Your task to perform on an android device: open chrome and create a bookmark for the current page Image 0: 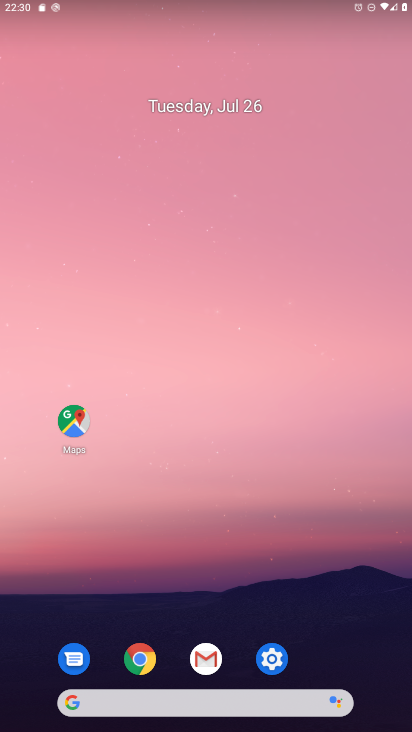
Step 0: click (143, 669)
Your task to perform on an android device: open chrome and create a bookmark for the current page Image 1: 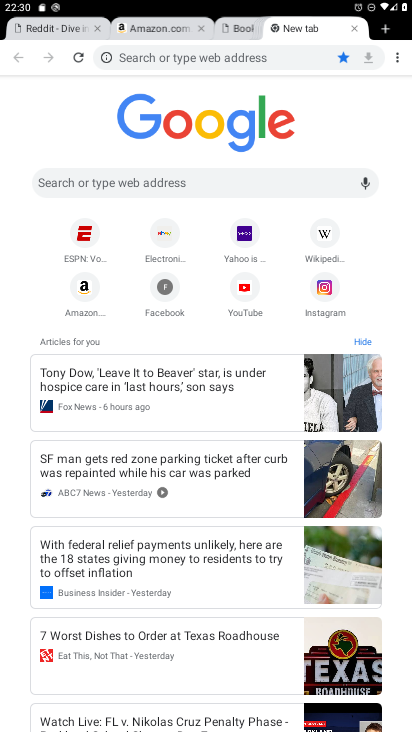
Step 1: click (399, 60)
Your task to perform on an android device: open chrome and create a bookmark for the current page Image 2: 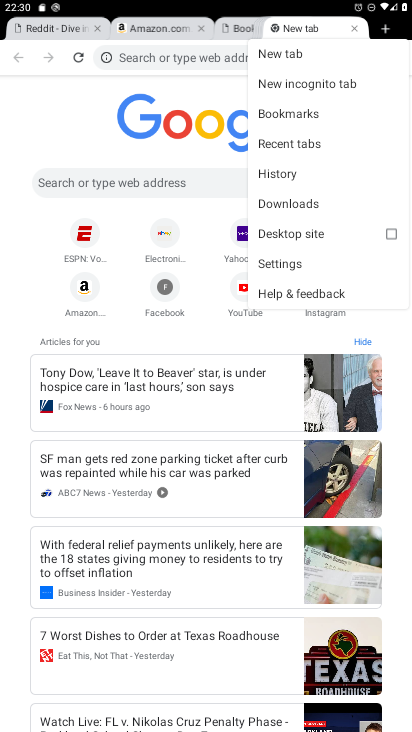
Step 2: click (297, 114)
Your task to perform on an android device: open chrome and create a bookmark for the current page Image 3: 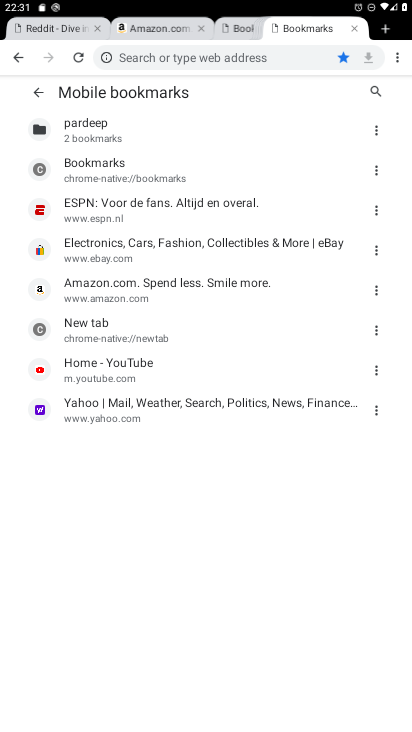
Step 3: task complete